Your task to perform on an android device: set the timer Image 0: 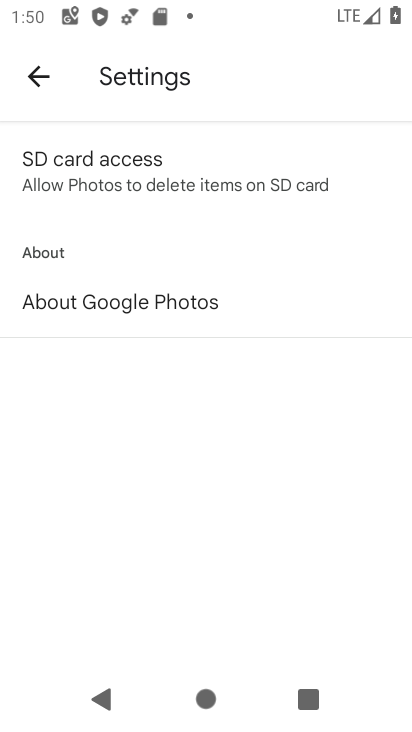
Step 0: press home button
Your task to perform on an android device: set the timer Image 1: 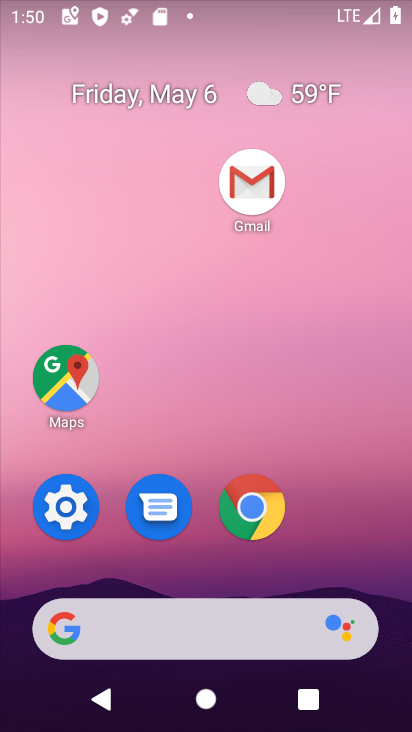
Step 1: drag from (315, 507) to (394, 39)
Your task to perform on an android device: set the timer Image 2: 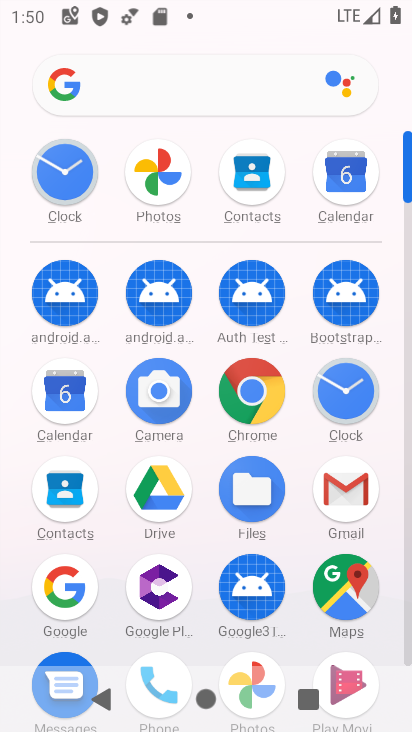
Step 2: drag from (200, 464) to (253, 106)
Your task to perform on an android device: set the timer Image 3: 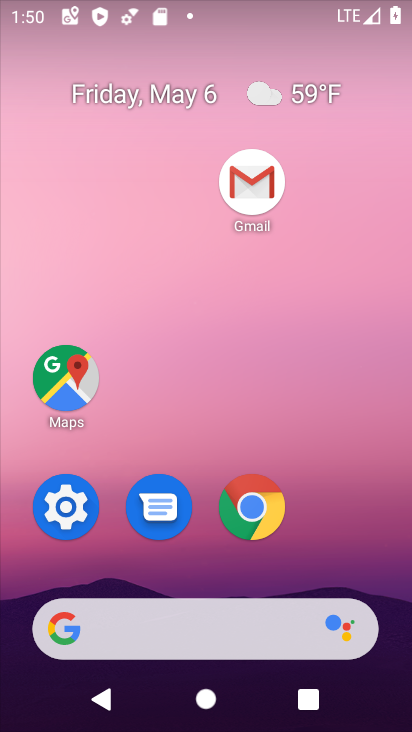
Step 3: drag from (342, 503) to (326, 36)
Your task to perform on an android device: set the timer Image 4: 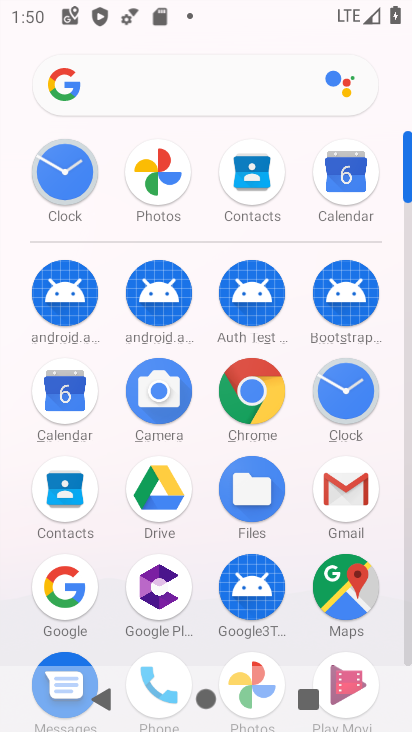
Step 4: click (340, 391)
Your task to perform on an android device: set the timer Image 5: 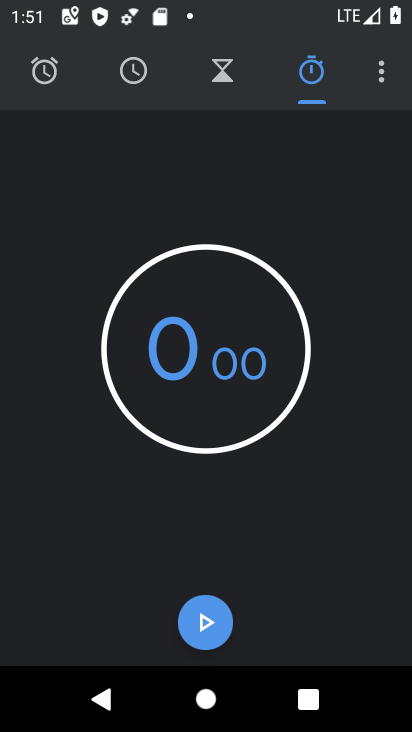
Step 5: click (219, 67)
Your task to perform on an android device: set the timer Image 6: 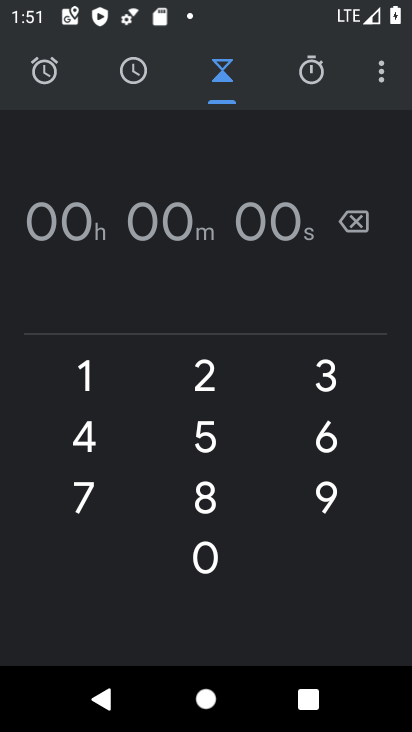
Step 6: click (211, 371)
Your task to perform on an android device: set the timer Image 7: 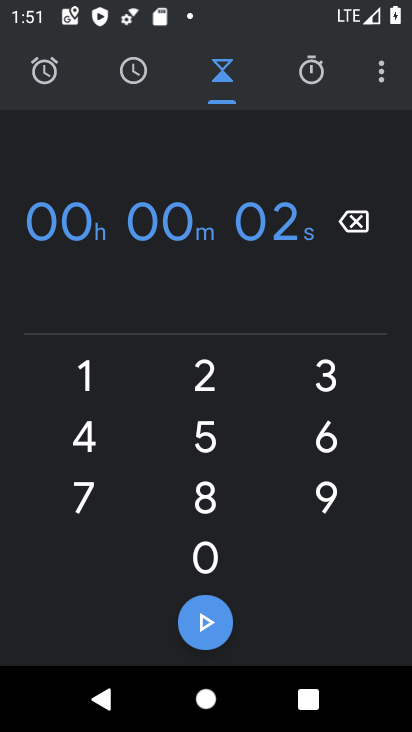
Step 7: click (211, 371)
Your task to perform on an android device: set the timer Image 8: 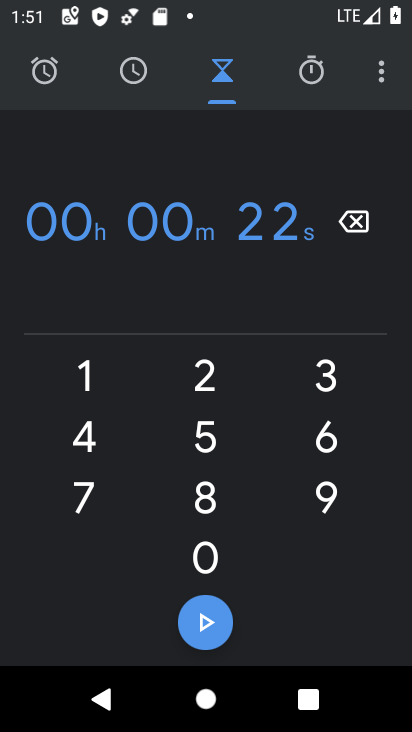
Step 8: click (211, 371)
Your task to perform on an android device: set the timer Image 9: 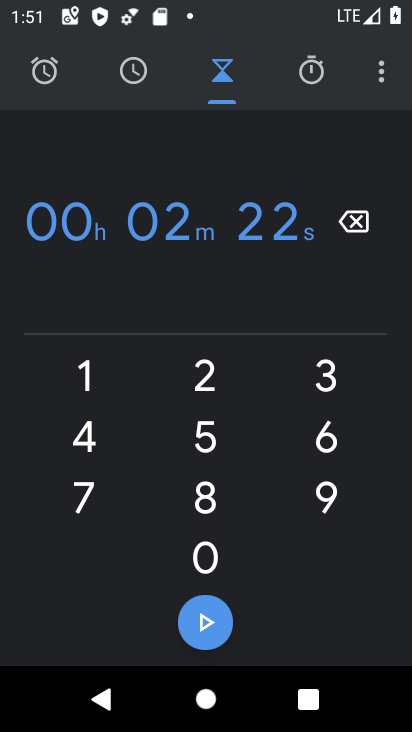
Step 9: click (211, 371)
Your task to perform on an android device: set the timer Image 10: 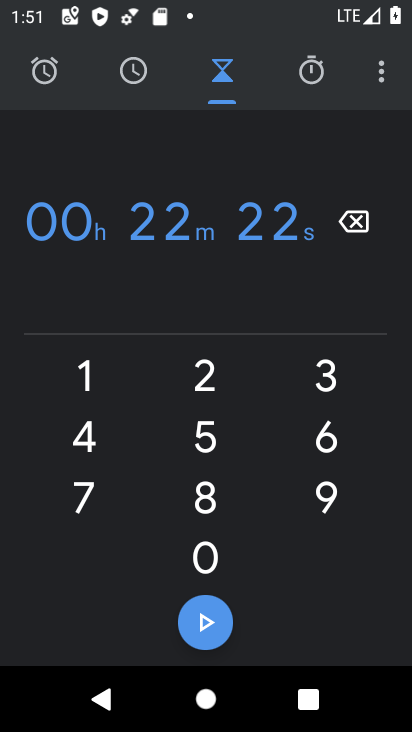
Step 10: click (211, 371)
Your task to perform on an android device: set the timer Image 11: 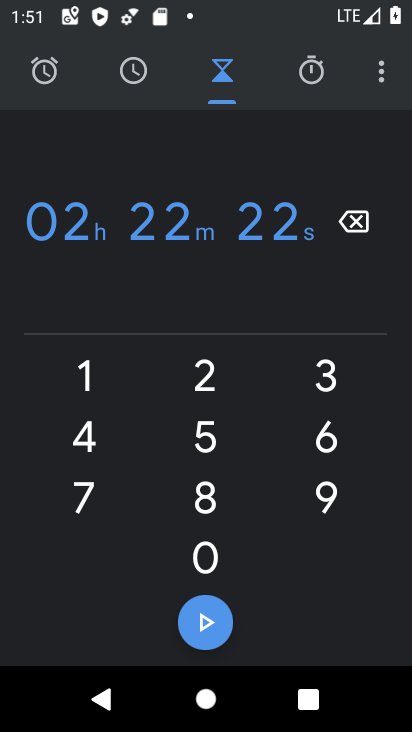
Step 11: task complete